Your task to perform on an android device: uninstall "Viber Messenger" Image 0: 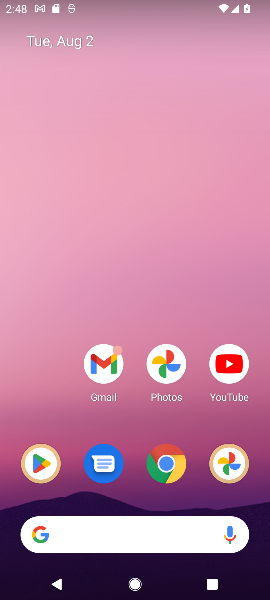
Step 0: click (44, 463)
Your task to perform on an android device: uninstall "Viber Messenger" Image 1: 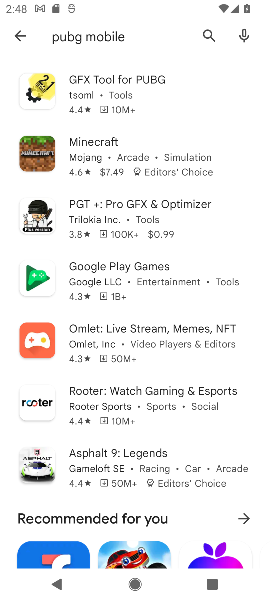
Step 1: click (206, 30)
Your task to perform on an android device: uninstall "Viber Messenger" Image 2: 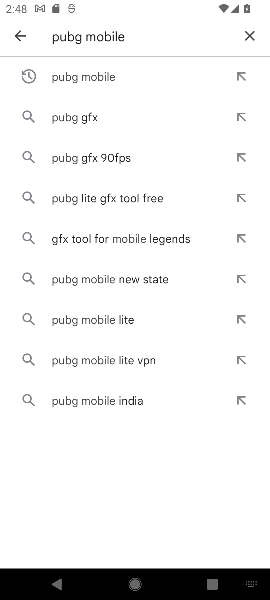
Step 2: click (247, 33)
Your task to perform on an android device: uninstall "Viber Messenger" Image 3: 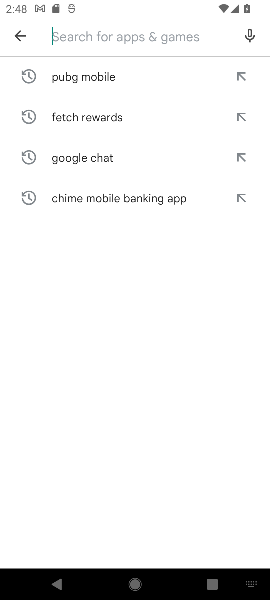
Step 3: type "Viber Messenger"
Your task to perform on an android device: uninstall "Viber Messenger" Image 4: 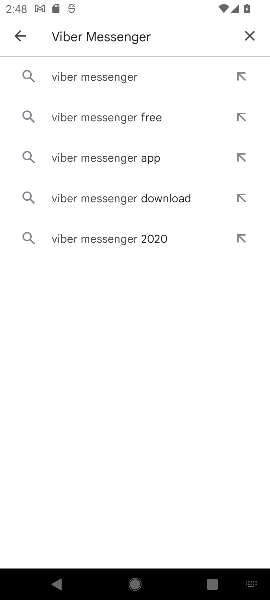
Step 4: click (117, 68)
Your task to perform on an android device: uninstall "Viber Messenger" Image 5: 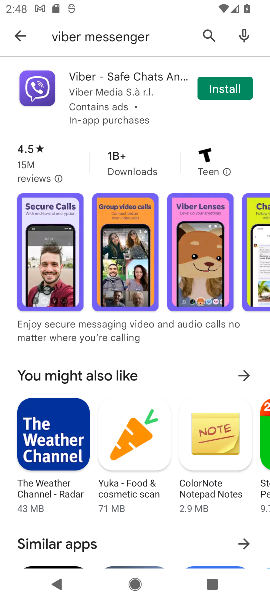
Step 5: task complete